Your task to perform on an android device: Find coffee shops on Maps Image 0: 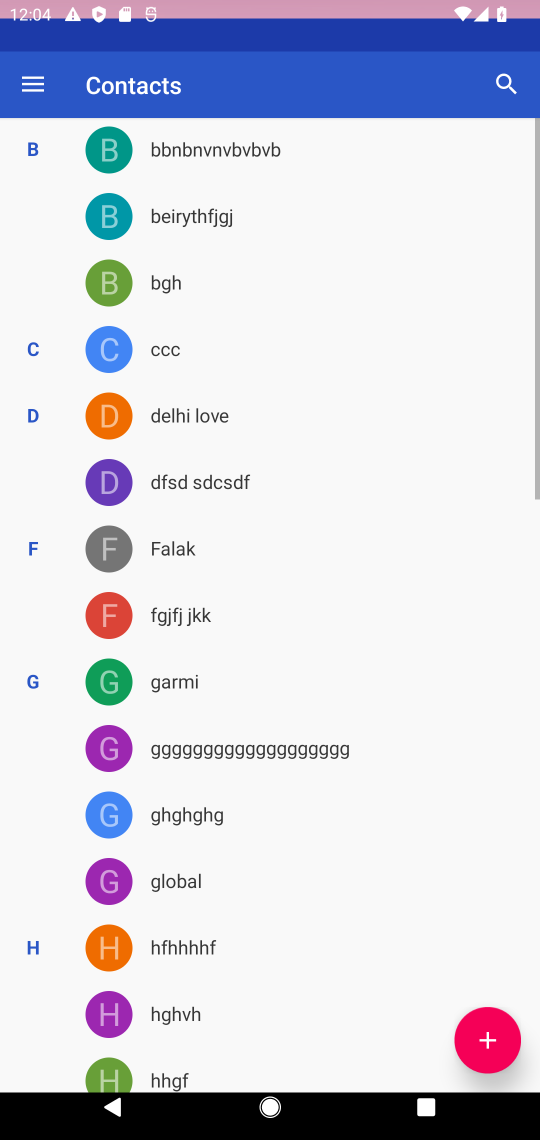
Step 0: click (443, 568)
Your task to perform on an android device: Find coffee shops on Maps Image 1: 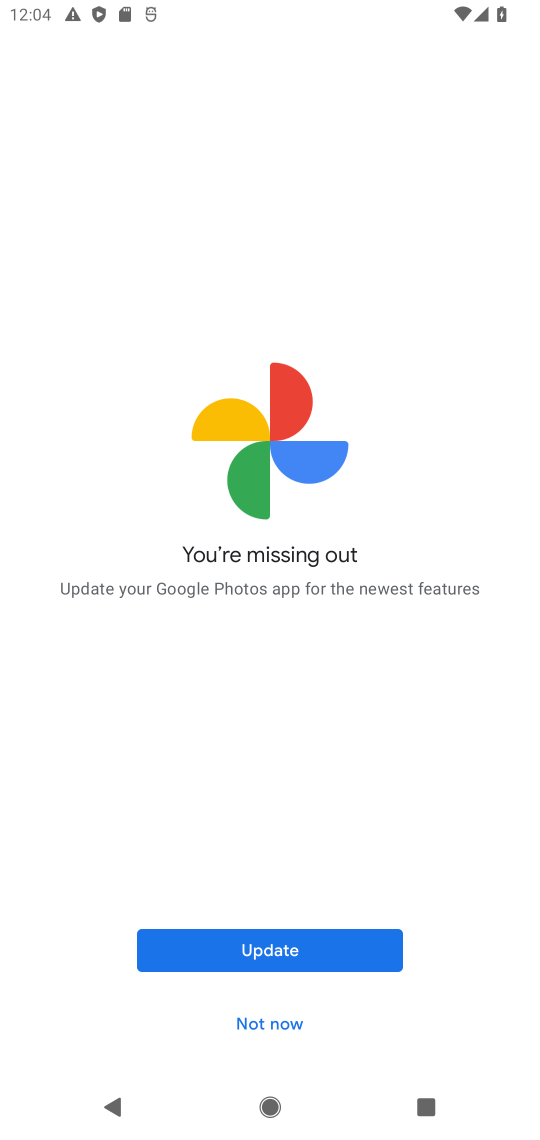
Step 1: click (294, 1018)
Your task to perform on an android device: Find coffee shops on Maps Image 2: 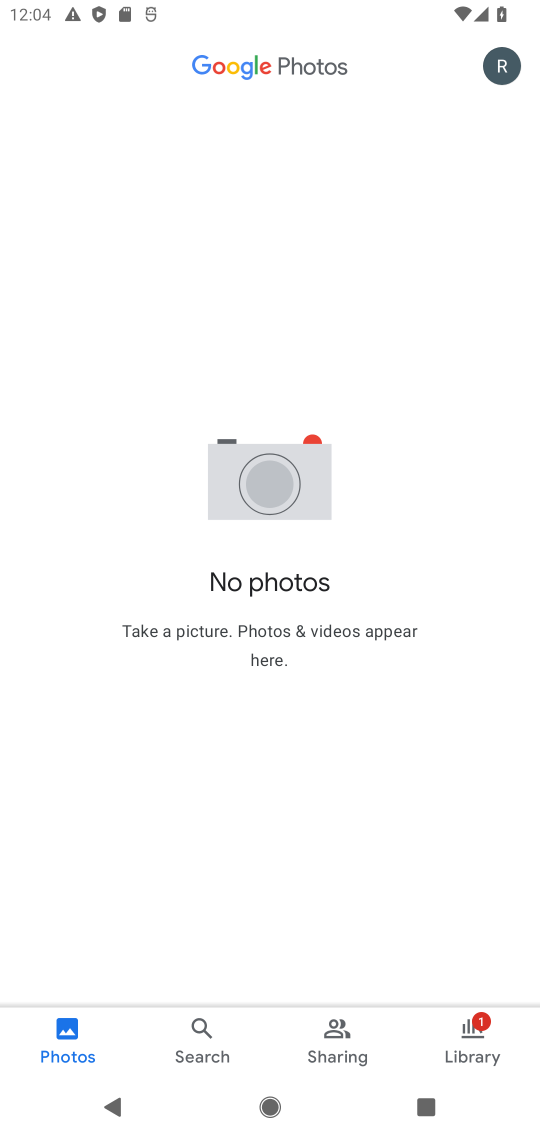
Step 2: press home button
Your task to perform on an android device: Find coffee shops on Maps Image 3: 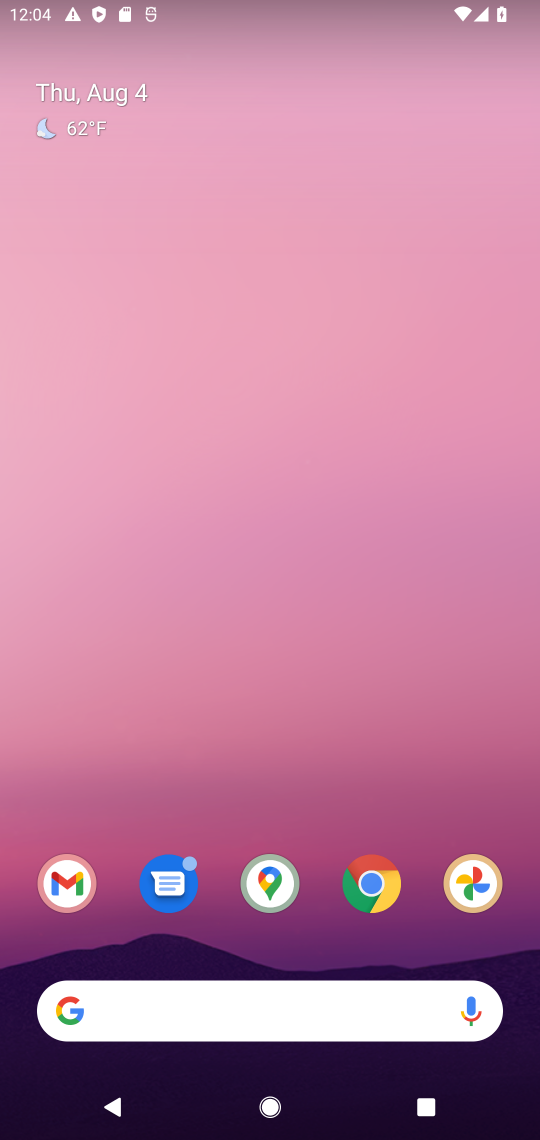
Step 3: drag from (241, 1023) to (128, 207)
Your task to perform on an android device: Find coffee shops on Maps Image 4: 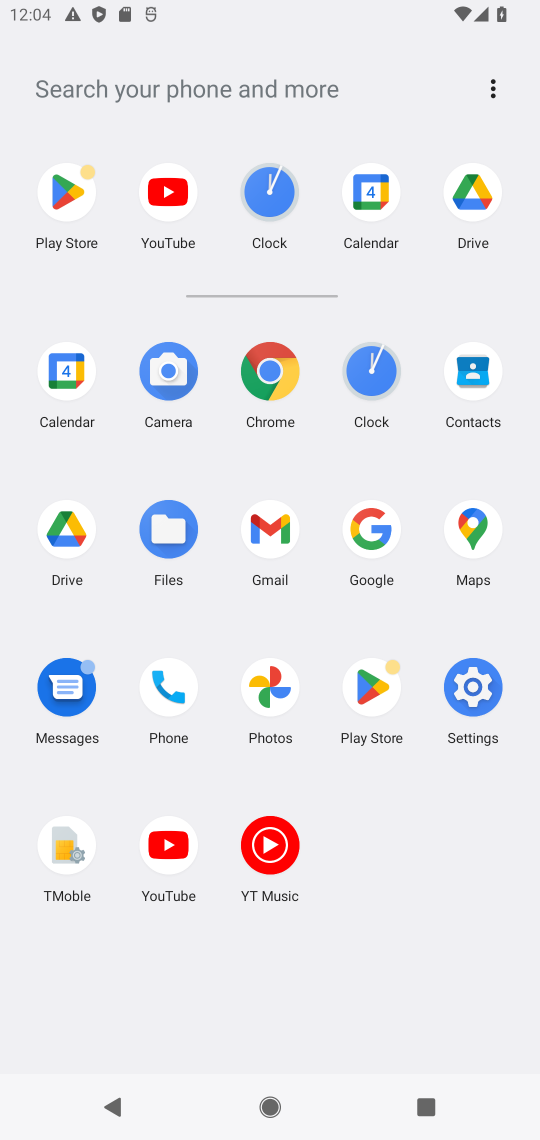
Step 4: click (482, 539)
Your task to perform on an android device: Find coffee shops on Maps Image 5: 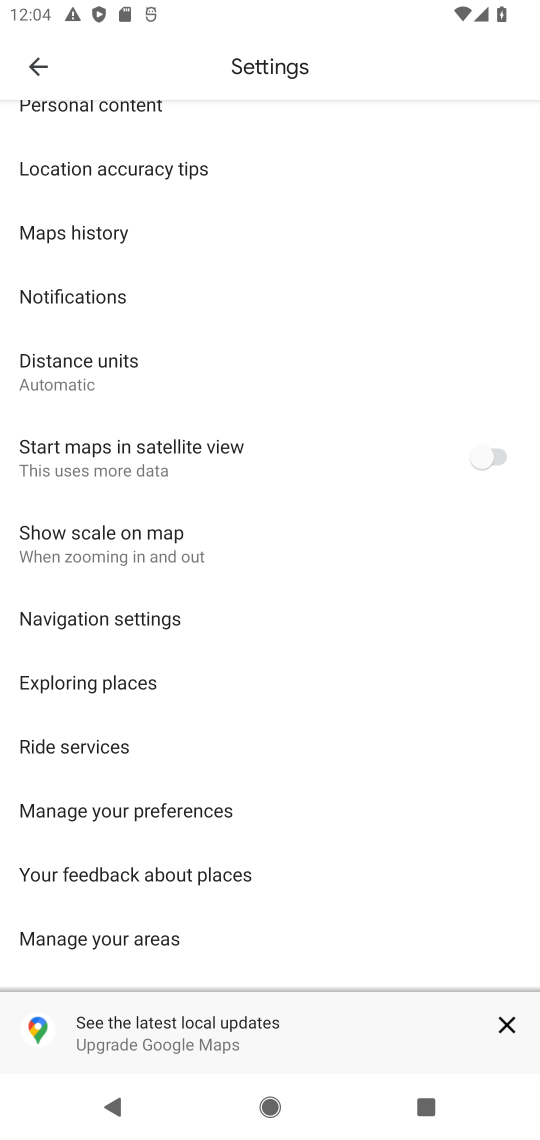
Step 5: drag from (208, 657) to (237, 392)
Your task to perform on an android device: Find coffee shops on Maps Image 6: 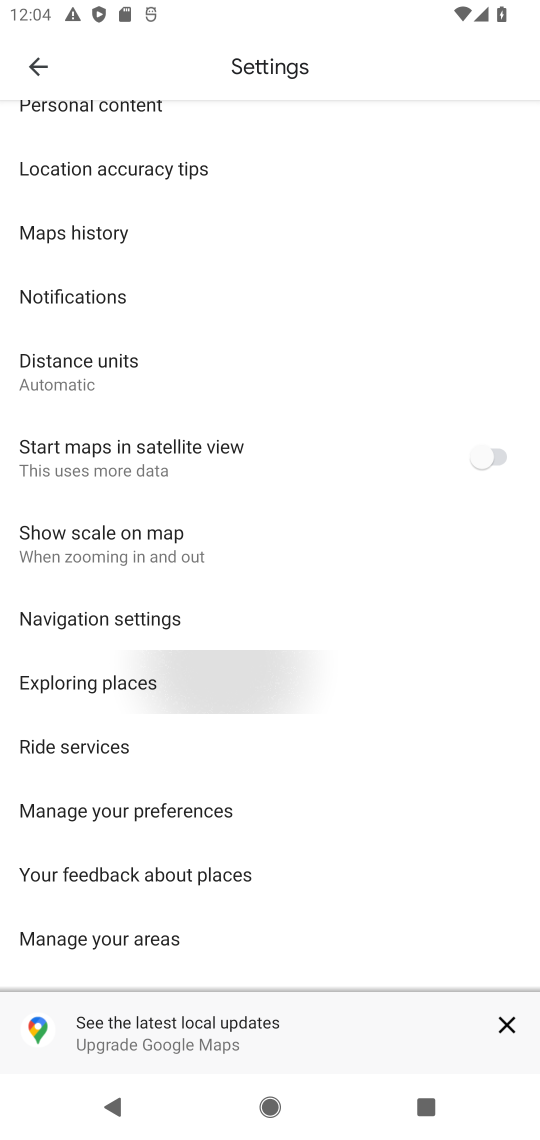
Step 6: drag from (260, 420) to (327, 1089)
Your task to perform on an android device: Find coffee shops on Maps Image 7: 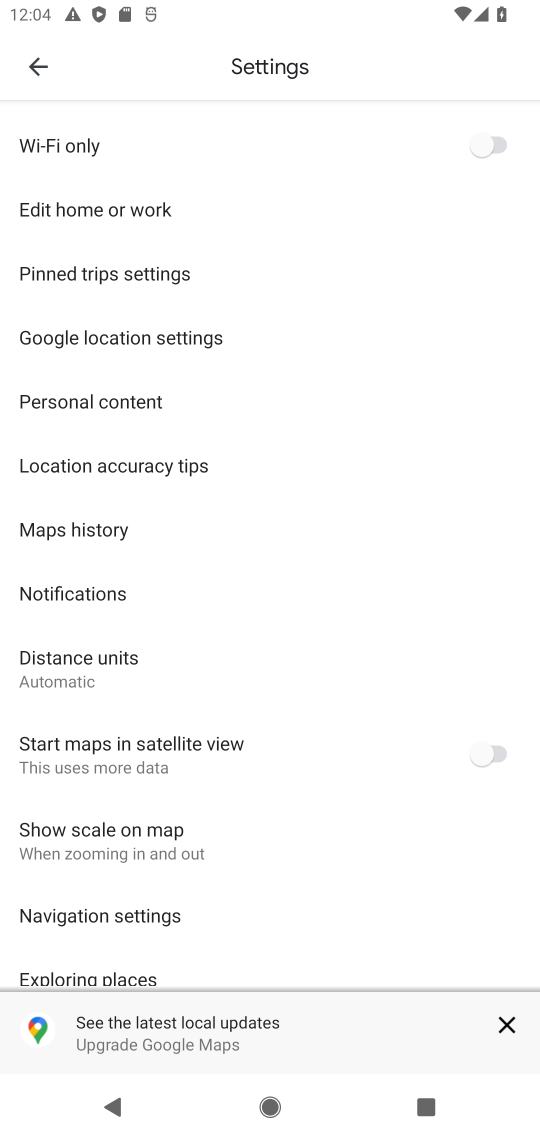
Step 7: press back button
Your task to perform on an android device: Find coffee shops on Maps Image 8: 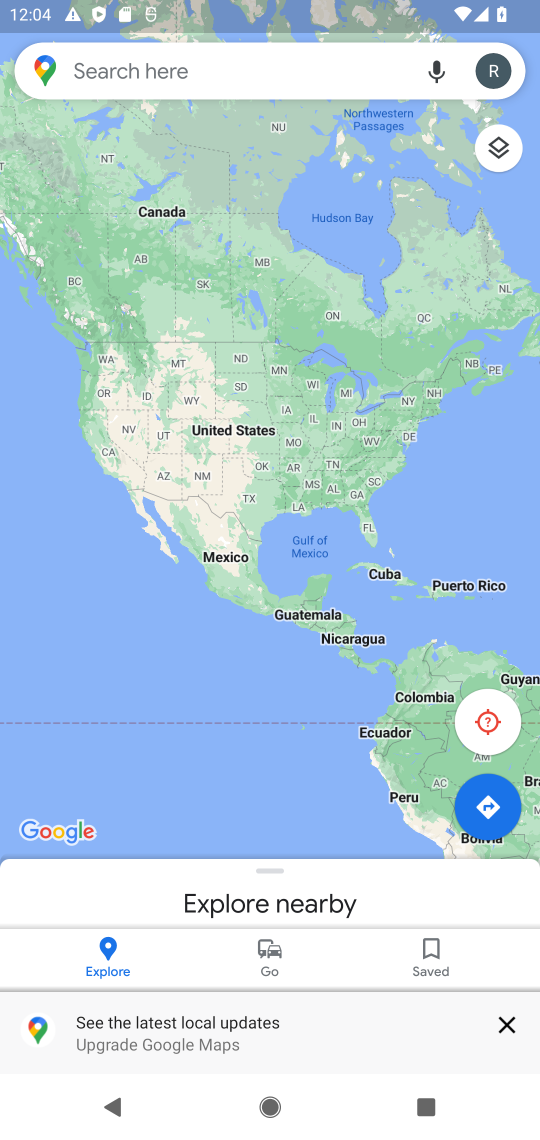
Step 8: click (154, 89)
Your task to perform on an android device: Find coffee shops on Maps Image 9: 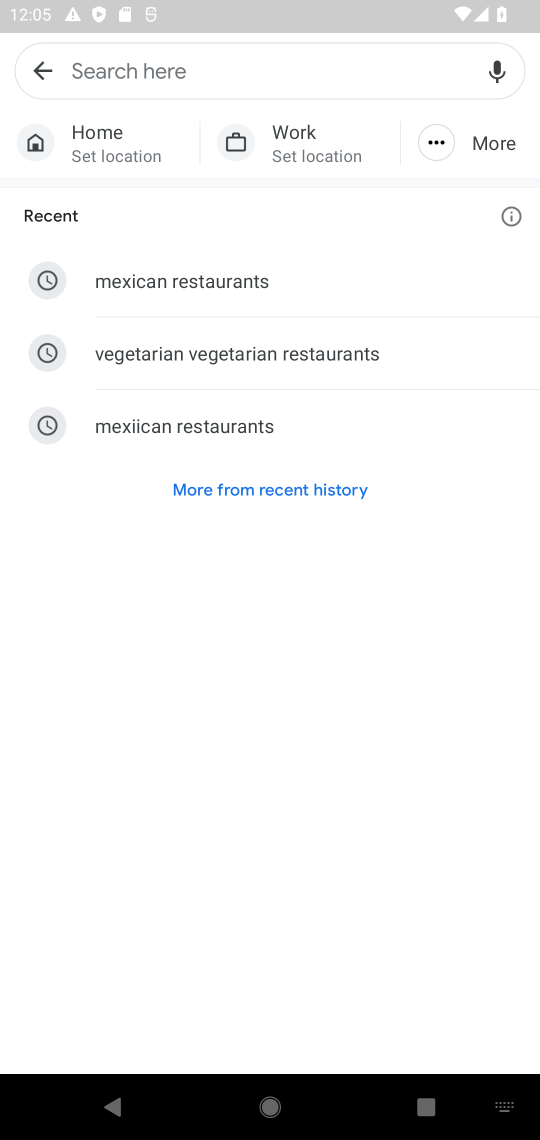
Step 9: type "coffee"
Your task to perform on an android device: Find coffee shops on Maps Image 10: 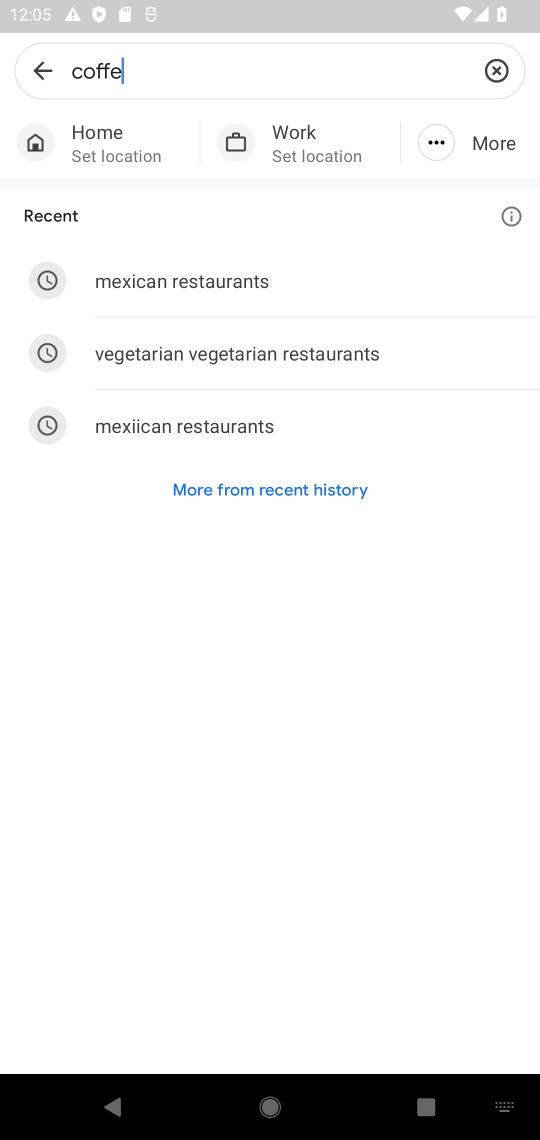
Step 10: type ""
Your task to perform on an android device: Find coffee shops on Maps Image 11: 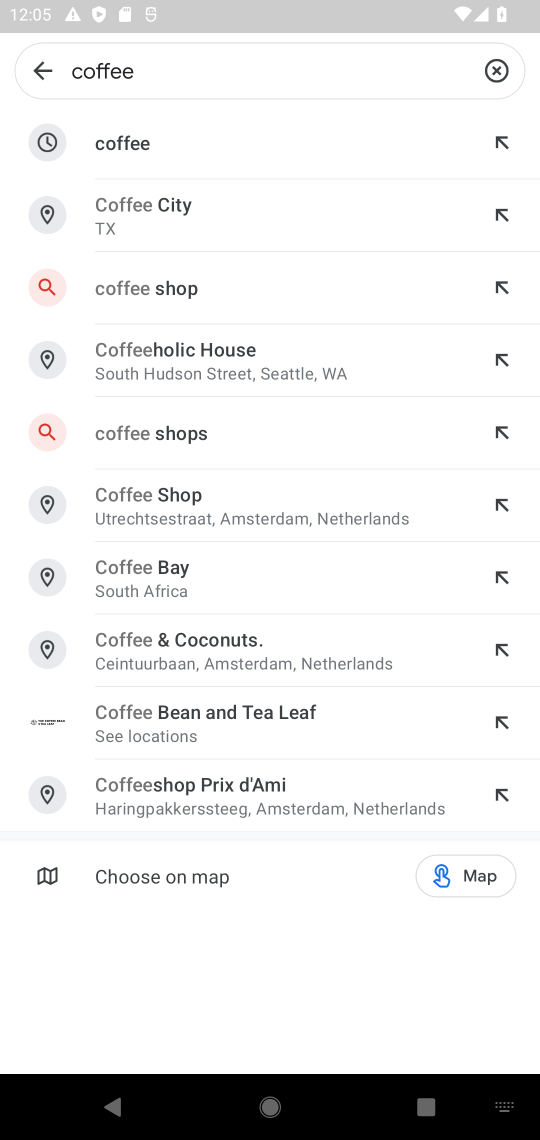
Step 11: click (198, 149)
Your task to perform on an android device: Find coffee shops on Maps Image 12: 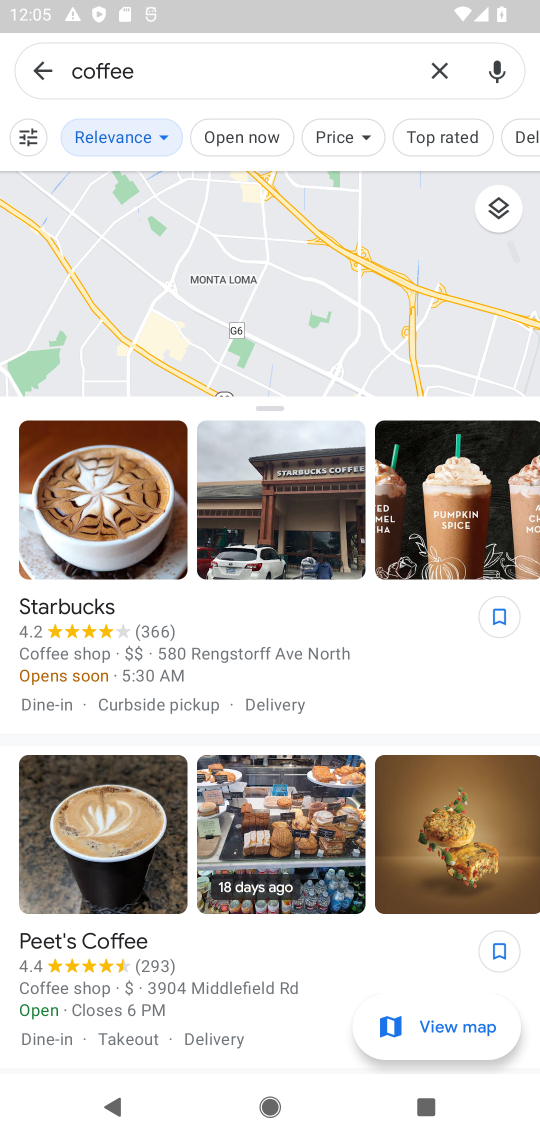
Step 12: task complete